Your task to perform on an android device: Open Wikipedia Image 0: 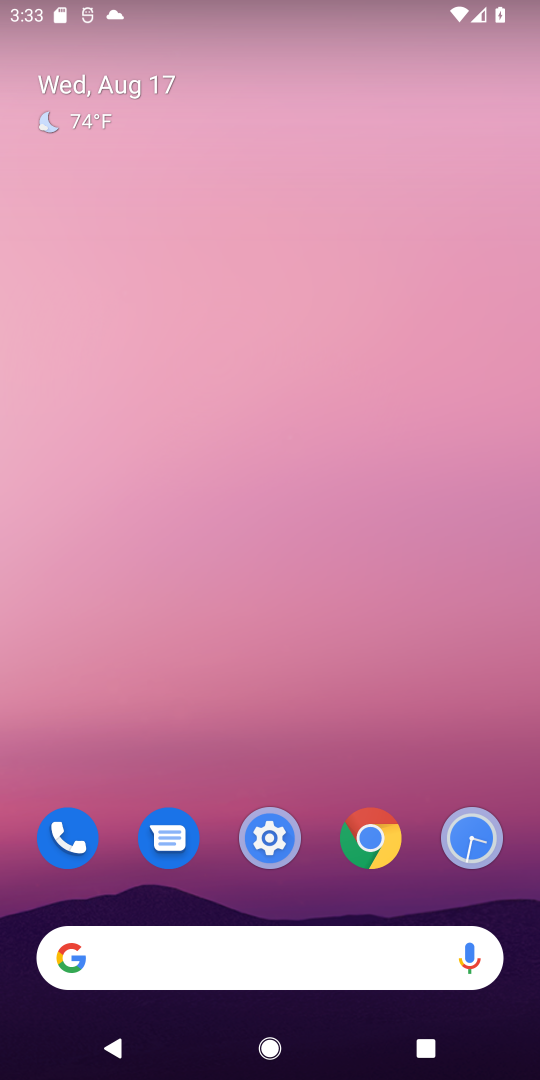
Step 0: click (370, 853)
Your task to perform on an android device: Open Wikipedia Image 1: 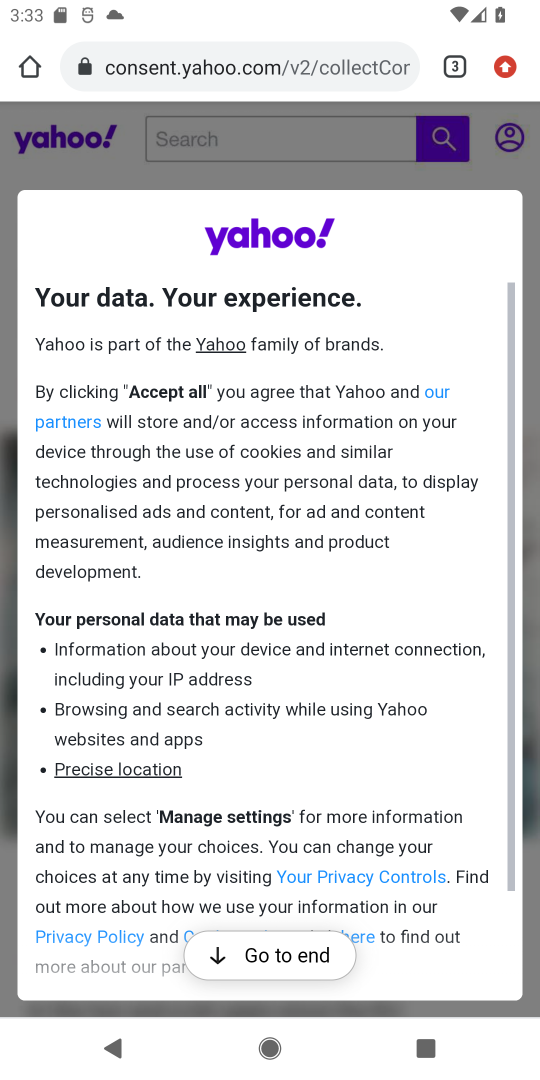
Step 1: click (448, 68)
Your task to perform on an android device: Open Wikipedia Image 2: 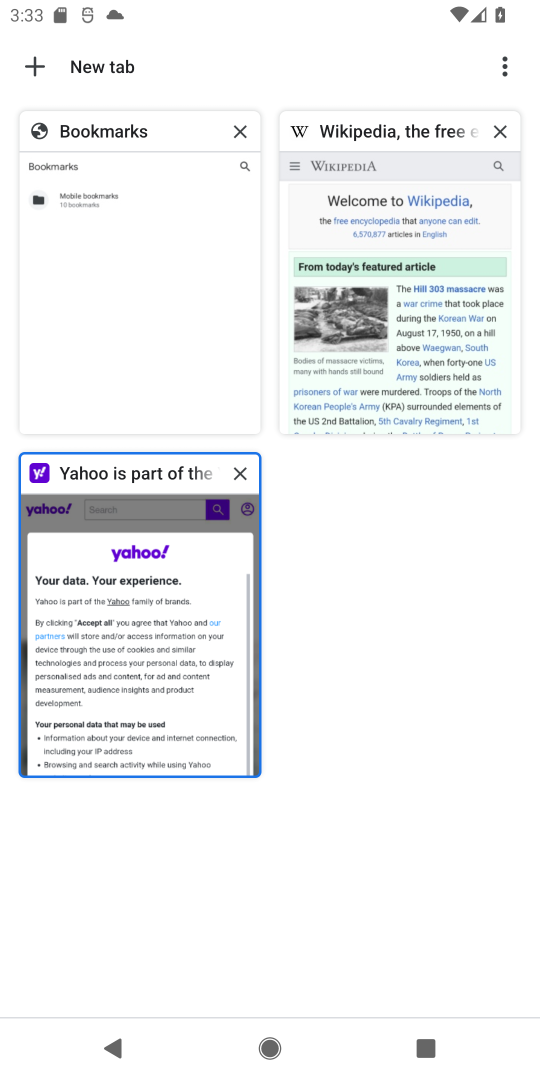
Step 2: click (411, 255)
Your task to perform on an android device: Open Wikipedia Image 3: 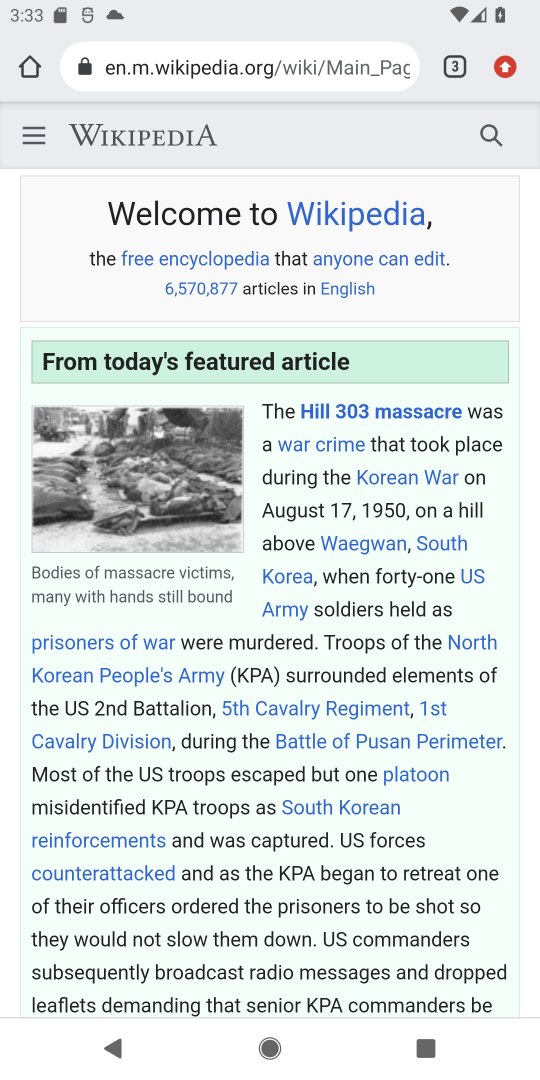
Step 3: task complete